Your task to perform on an android device: Open battery settings Image 0: 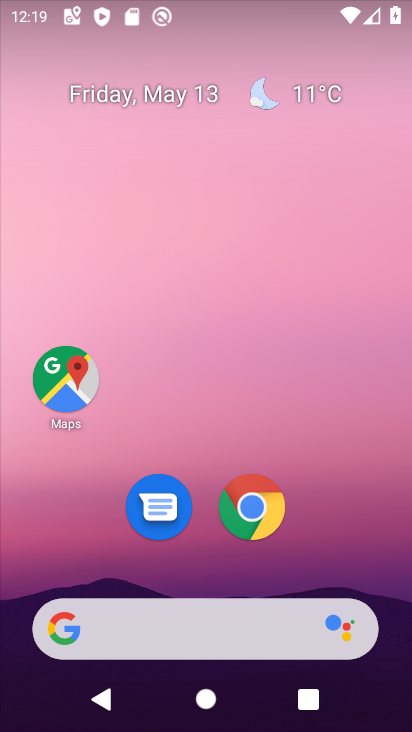
Step 0: drag from (169, 565) to (132, 16)
Your task to perform on an android device: Open battery settings Image 1: 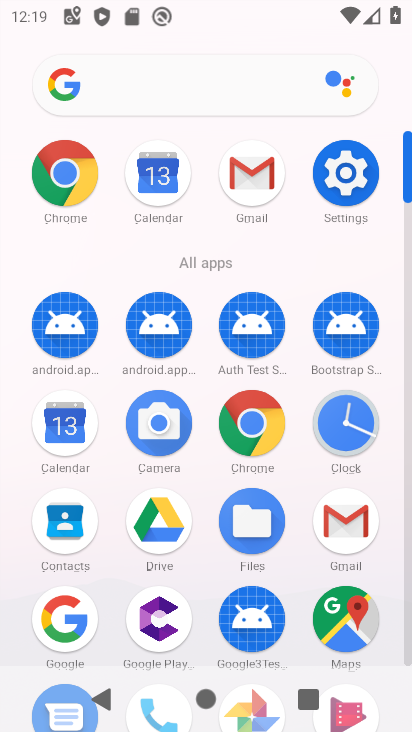
Step 1: click (353, 191)
Your task to perform on an android device: Open battery settings Image 2: 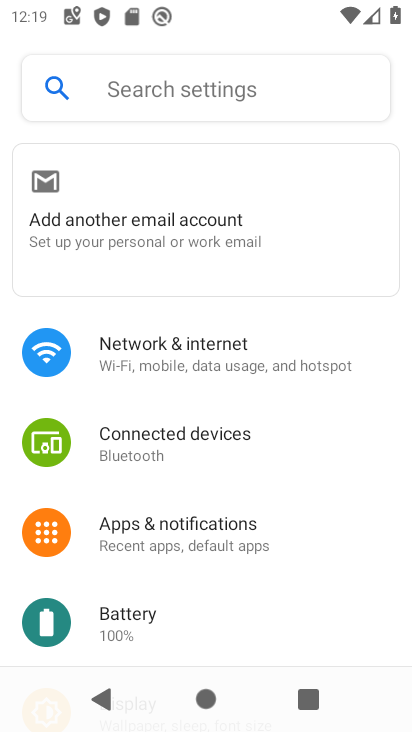
Step 2: click (215, 597)
Your task to perform on an android device: Open battery settings Image 3: 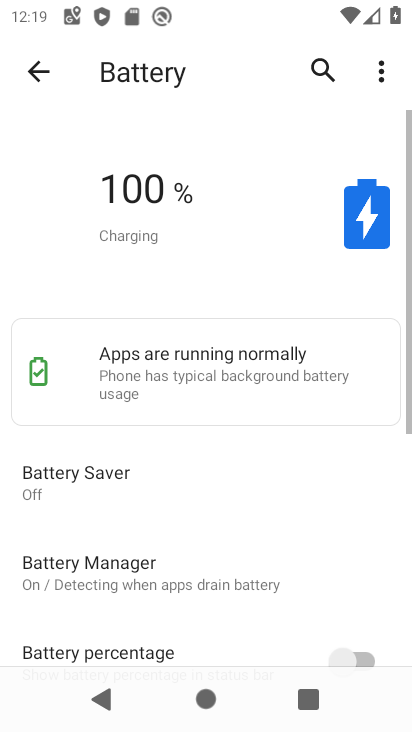
Step 3: task complete